Your task to perform on an android device: turn smart compose on in the gmail app Image 0: 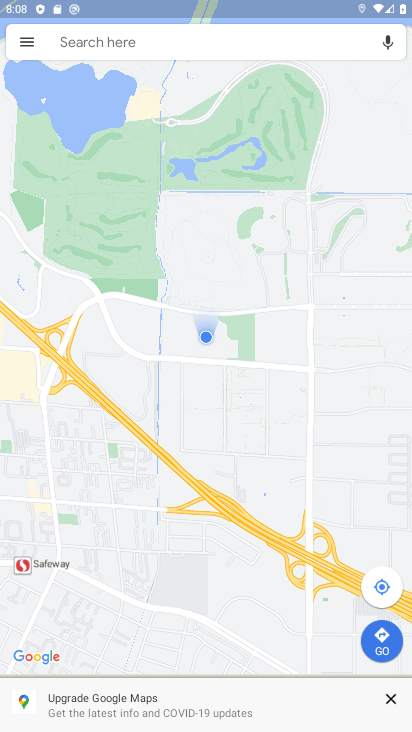
Step 0: press home button
Your task to perform on an android device: turn smart compose on in the gmail app Image 1: 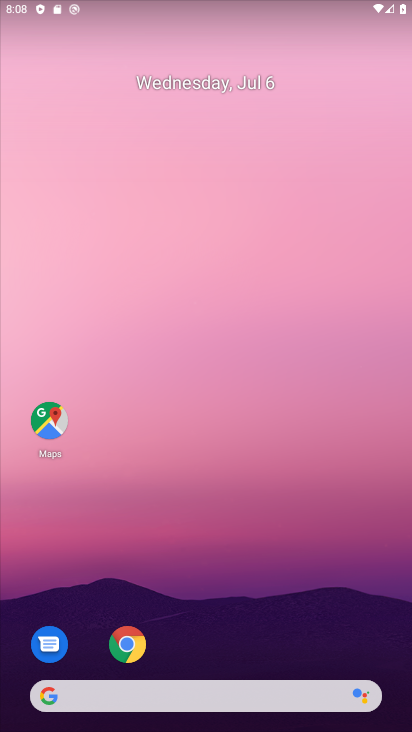
Step 1: drag from (226, 582) to (235, 170)
Your task to perform on an android device: turn smart compose on in the gmail app Image 2: 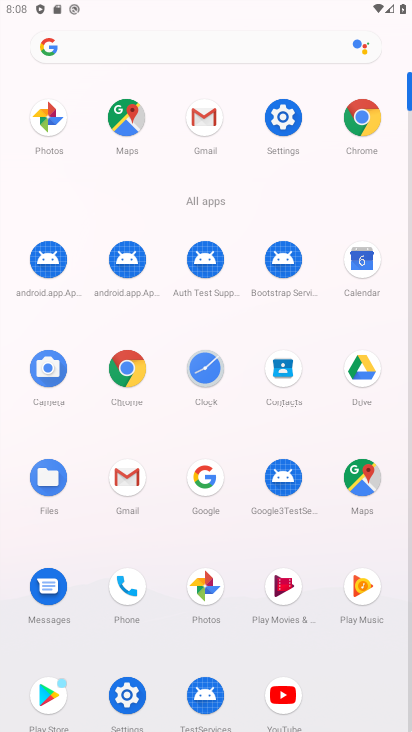
Step 2: click (203, 118)
Your task to perform on an android device: turn smart compose on in the gmail app Image 3: 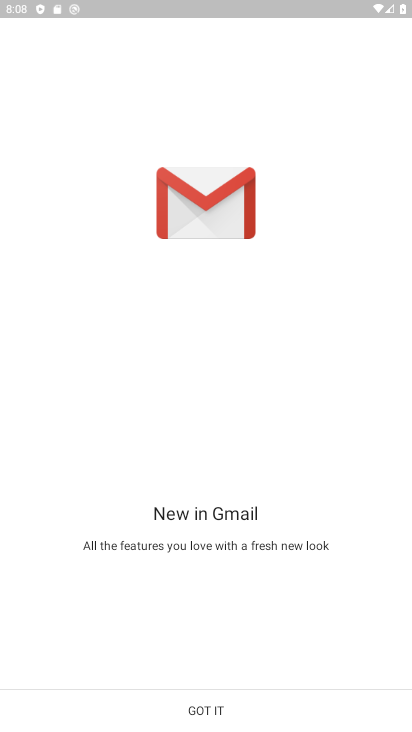
Step 3: click (235, 712)
Your task to perform on an android device: turn smart compose on in the gmail app Image 4: 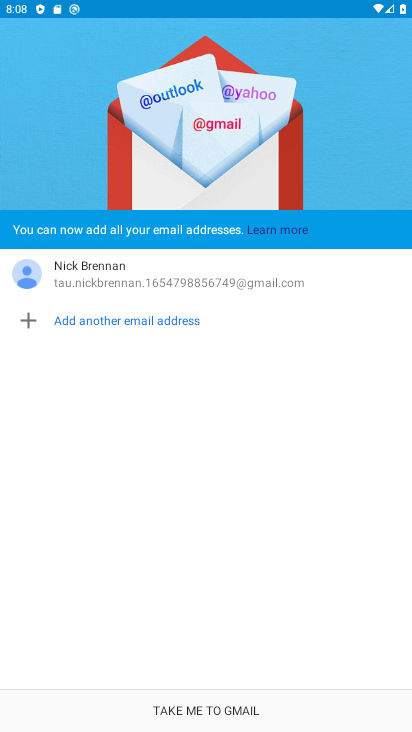
Step 4: click (222, 713)
Your task to perform on an android device: turn smart compose on in the gmail app Image 5: 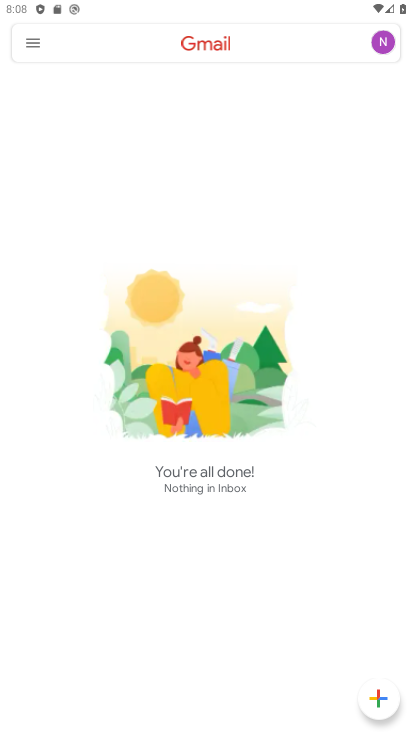
Step 5: click (41, 50)
Your task to perform on an android device: turn smart compose on in the gmail app Image 6: 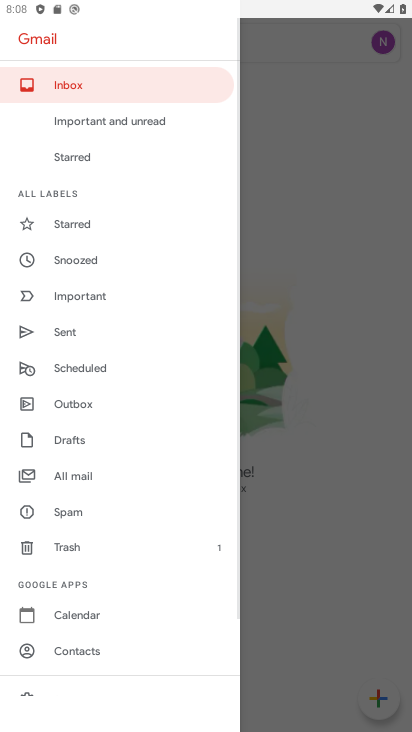
Step 6: drag from (130, 614) to (131, 271)
Your task to perform on an android device: turn smart compose on in the gmail app Image 7: 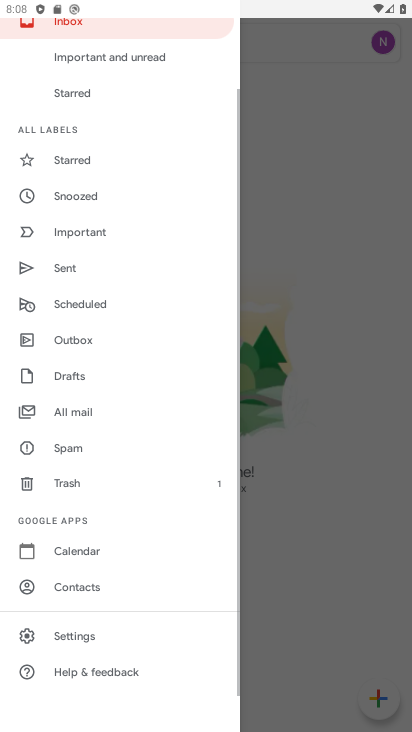
Step 7: click (83, 634)
Your task to perform on an android device: turn smart compose on in the gmail app Image 8: 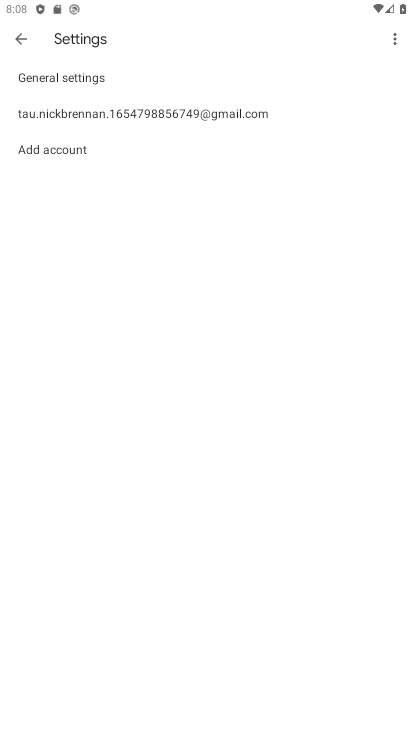
Step 8: click (157, 115)
Your task to perform on an android device: turn smart compose on in the gmail app Image 9: 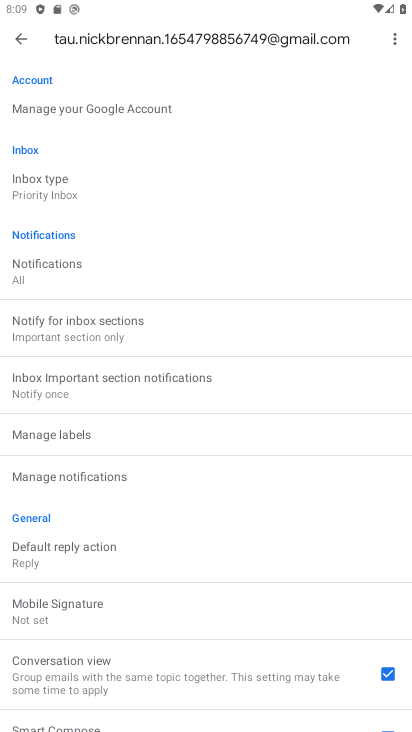
Step 9: task complete